Your task to perform on an android device: see tabs open on other devices in the chrome app Image 0: 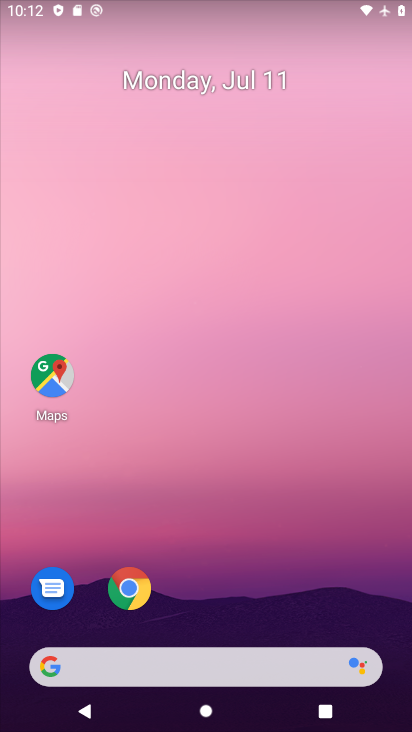
Step 0: click (133, 581)
Your task to perform on an android device: see tabs open on other devices in the chrome app Image 1: 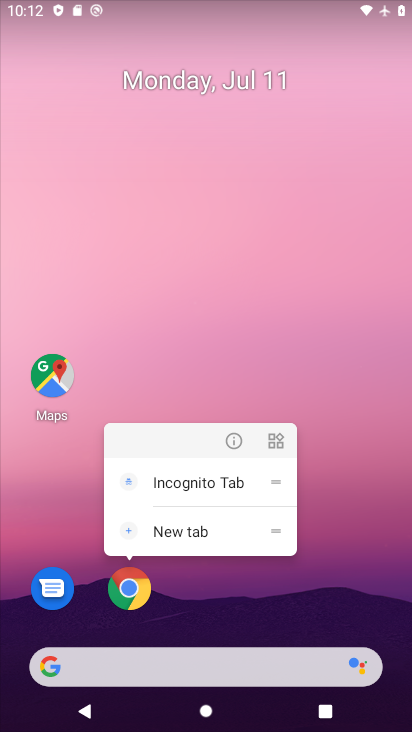
Step 1: click (126, 594)
Your task to perform on an android device: see tabs open on other devices in the chrome app Image 2: 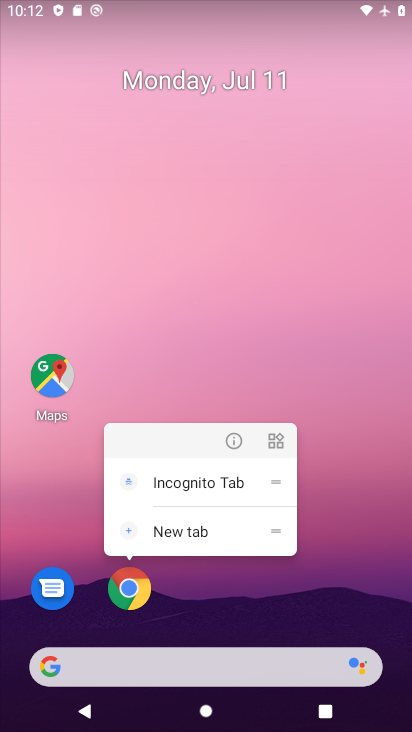
Step 2: click (126, 598)
Your task to perform on an android device: see tabs open on other devices in the chrome app Image 3: 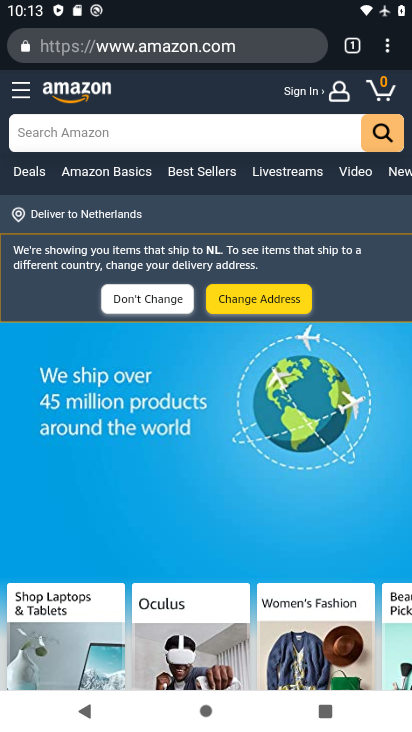
Step 3: task complete